Your task to perform on an android device: Go to CNN.com Image 0: 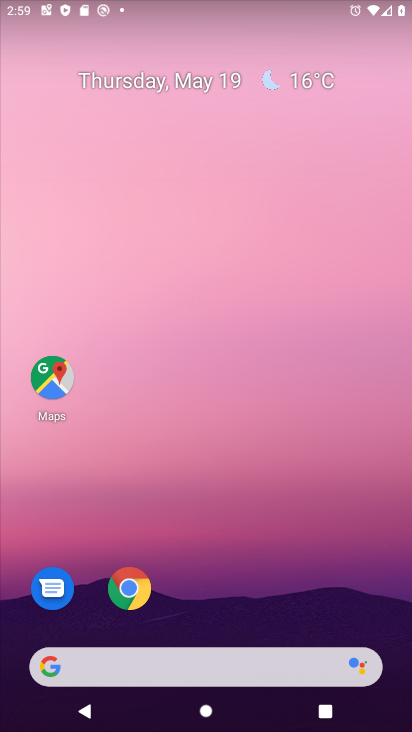
Step 0: click (131, 581)
Your task to perform on an android device: Go to CNN.com Image 1: 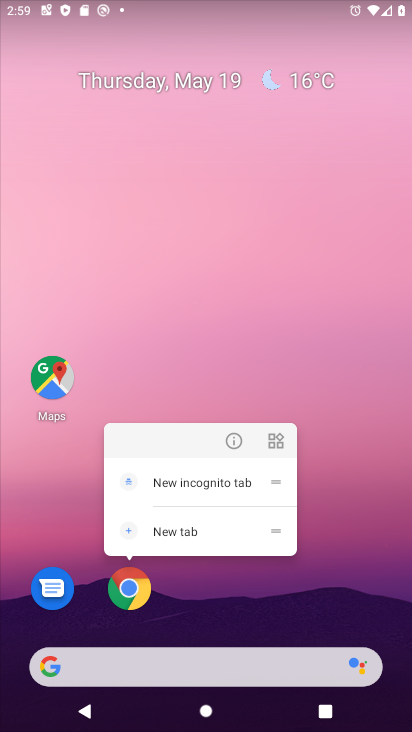
Step 1: click (121, 586)
Your task to perform on an android device: Go to CNN.com Image 2: 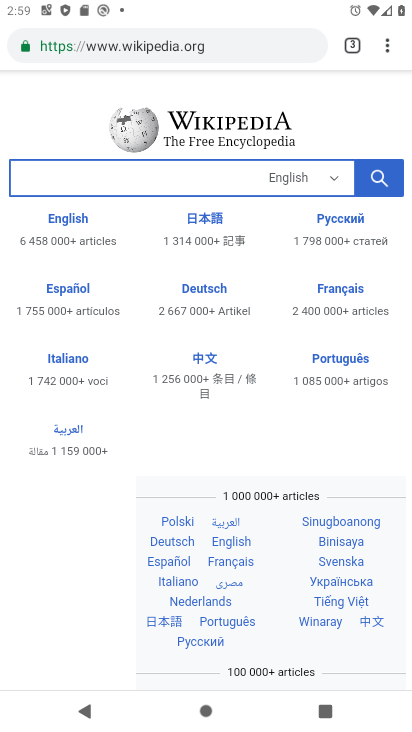
Step 2: click (191, 51)
Your task to perform on an android device: Go to CNN.com Image 3: 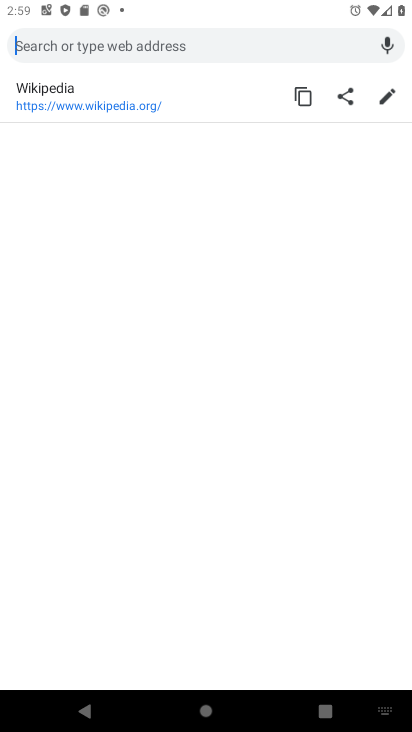
Step 3: type "cnn.com"
Your task to perform on an android device: Go to CNN.com Image 4: 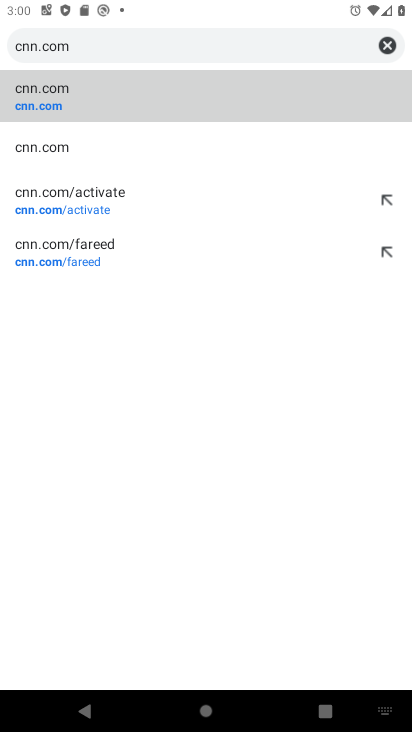
Step 4: click (47, 107)
Your task to perform on an android device: Go to CNN.com Image 5: 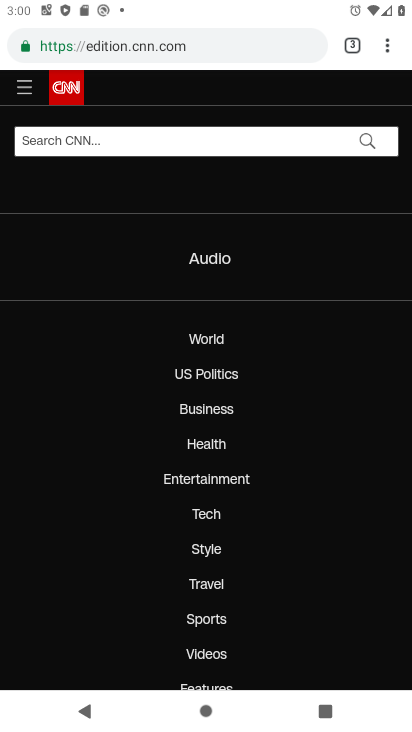
Step 5: task complete